Your task to perform on an android device: move an email to a new category in the gmail app Image 0: 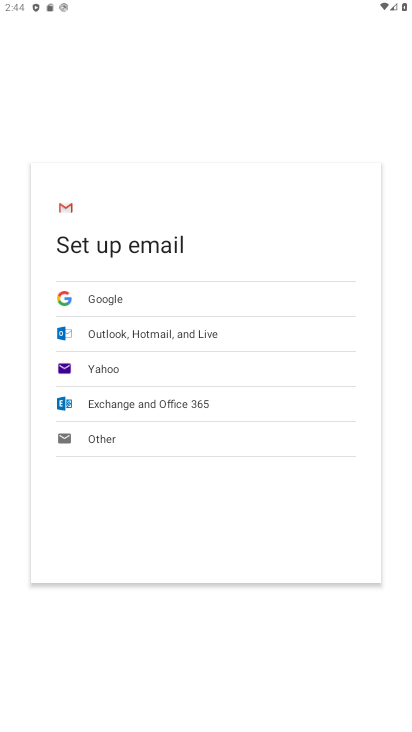
Step 0: press home button
Your task to perform on an android device: move an email to a new category in the gmail app Image 1: 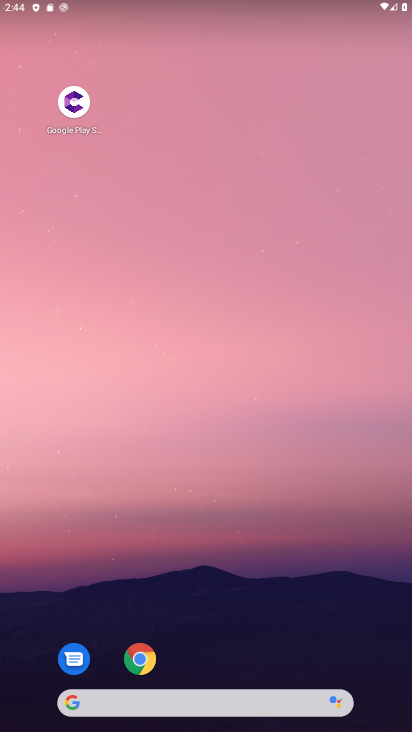
Step 1: drag from (298, 614) to (303, 80)
Your task to perform on an android device: move an email to a new category in the gmail app Image 2: 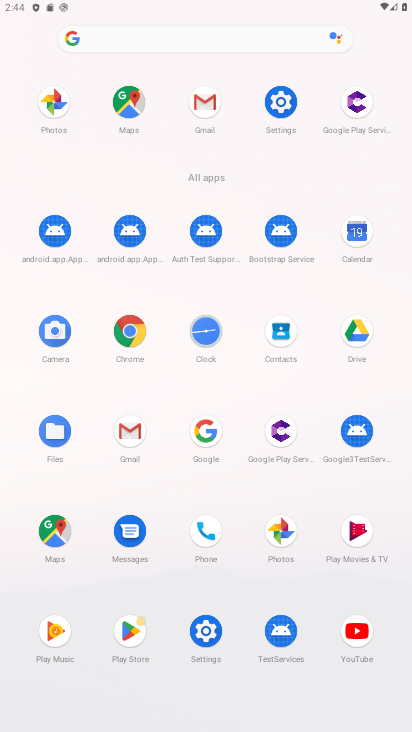
Step 2: click (203, 109)
Your task to perform on an android device: move an email to a new category in the gmail app Image 3: 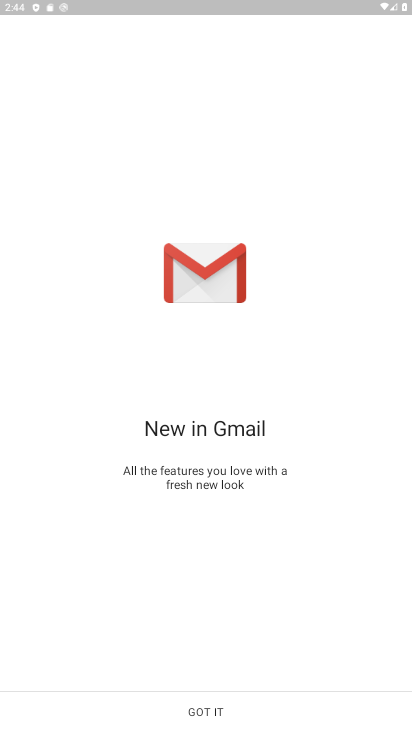
Step 3: click (288, 701)
Your task to perform on an android device: move an email to a new category in the gmail app Image 4: 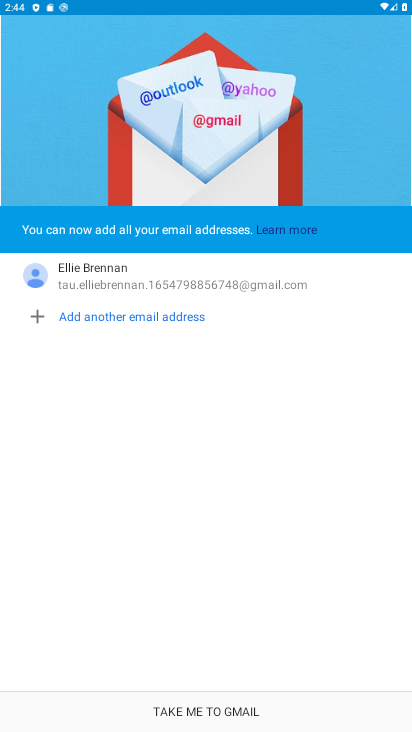
Step 4: click (288, 701)
Your task to perform on an android device: move an email to a new category in the gmail app Image 5: 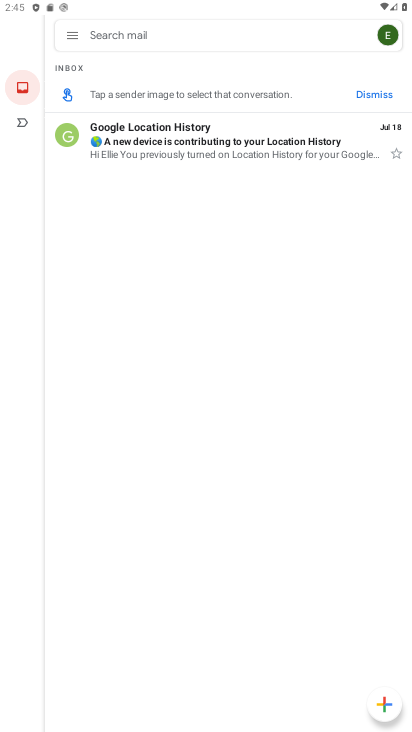
Step 5: click (101, 89)
Your task to perform on an android device: move an email to a new category in the gmail app Image 6: 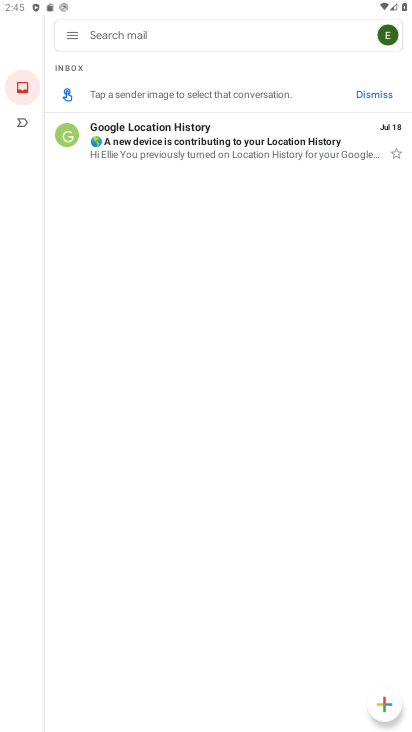
Step 6: click (179, 142)
Your task to perform on an android device: move an email to a new category in the gmail app Image 7: 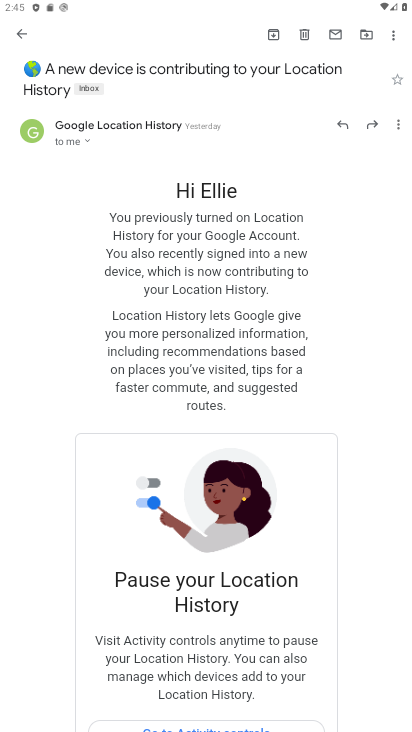
Step 7: click (397, 40)
Your task to perform on an android device: move an email to a new category in the gmail app Image 8: 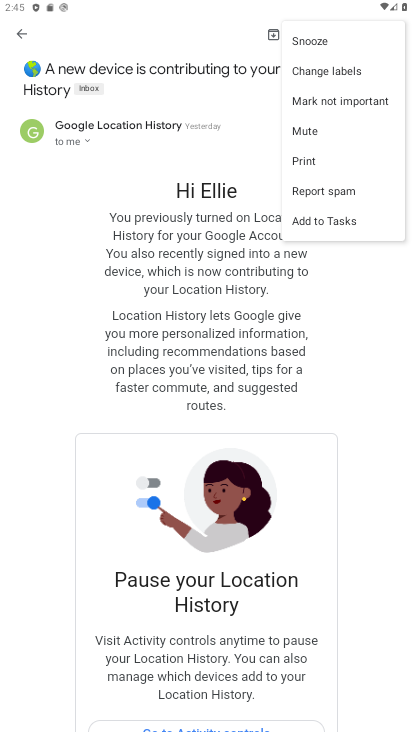
Step 8: click (315, 101)
Your task to perform on an android device: move an email to a new category in the gmail app Image 9: 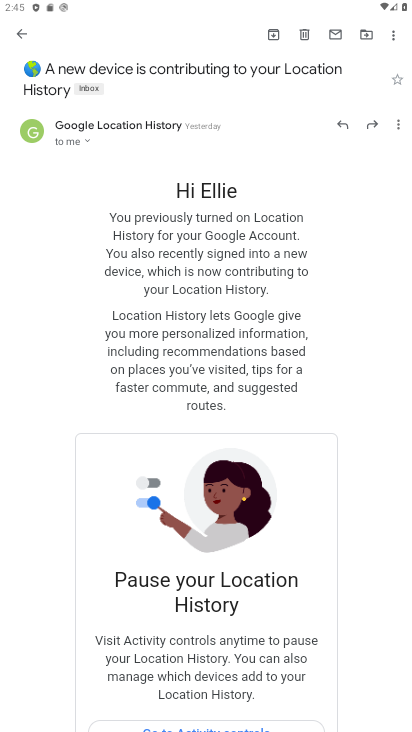
Step 9: task complete